Your task to perform on an android device: Search for pizza restaurants on Maps Image 0: 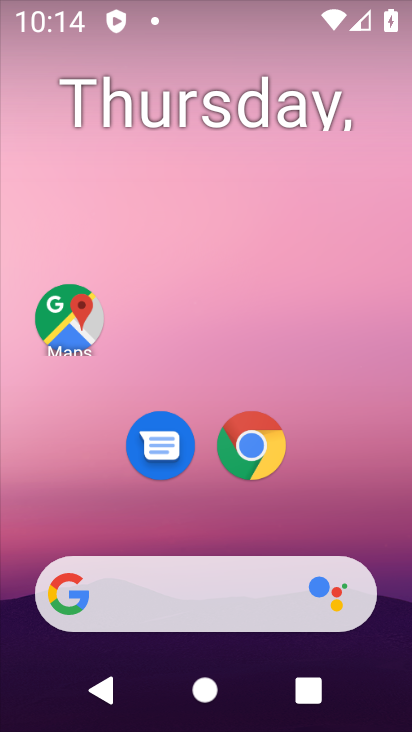
Step 0: drag from (374, 531) to (248, 0)
Your task to perform on an android device: Search for pizza restaurants on Maps Image 1: 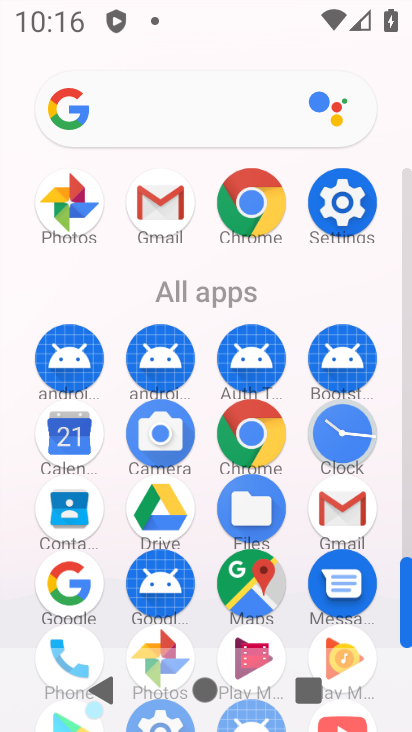
Step 1: click (264, 580)
Your task to perform on an android device: Search for pizza restaurants on Maps Image 2: 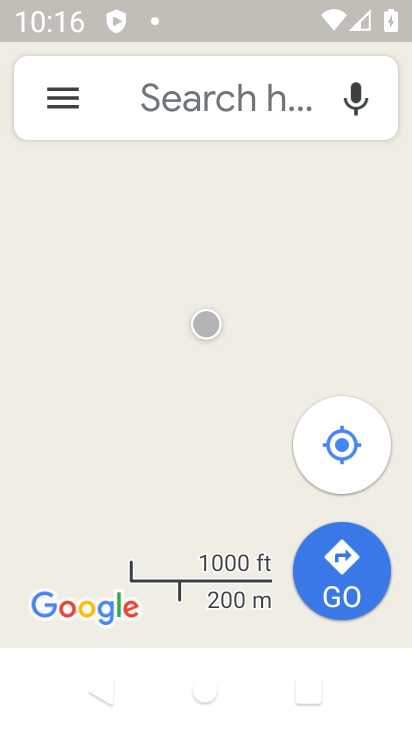
Step 2: click (183, 109)
Your task to perform on an android device: Search for pizza restaurants on Maps Image 3: 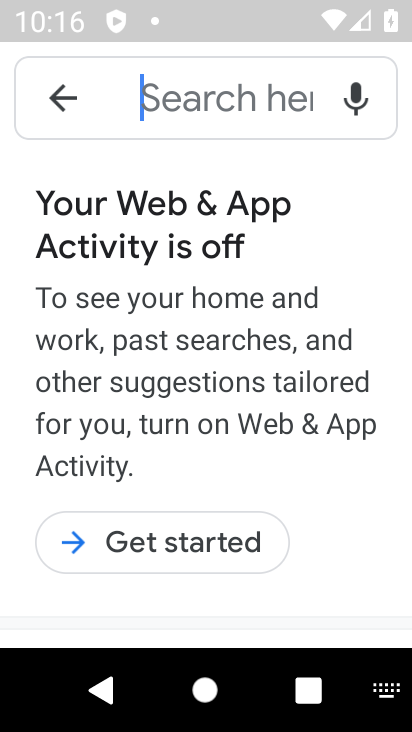
Step 3: click (164, 547)
Your task to perform on an android device: Search for pizza restaurants on Maps Image 4: 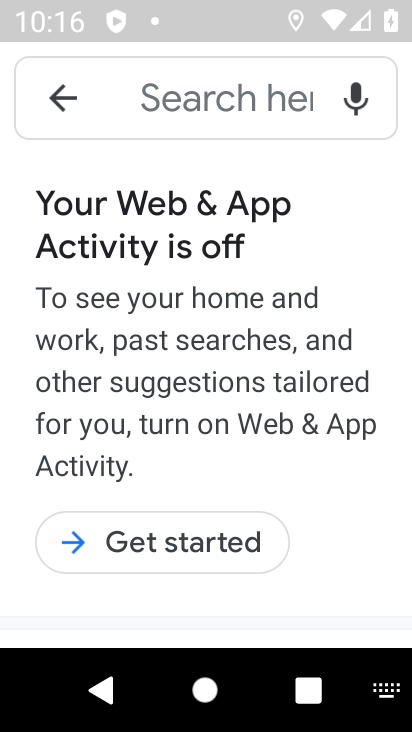
Step 4: click (152, 546)
Your task to perform on an android device: Search for pizza restaurants on Maps Image 5: 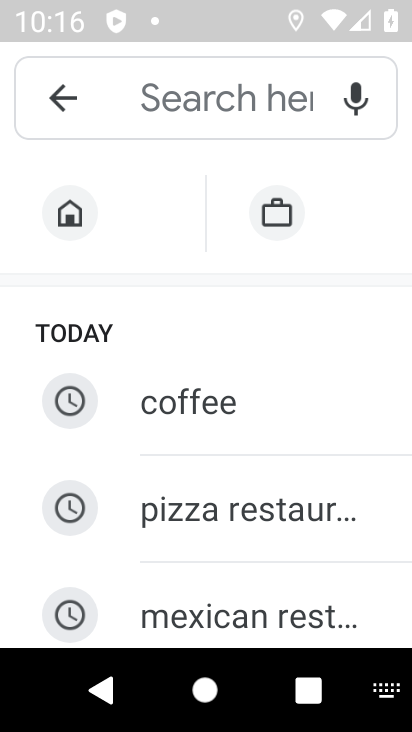
Step 5: click (203, 509)
Your task to perform on an android device: Search for pizza restaurants on Maps Image 6: 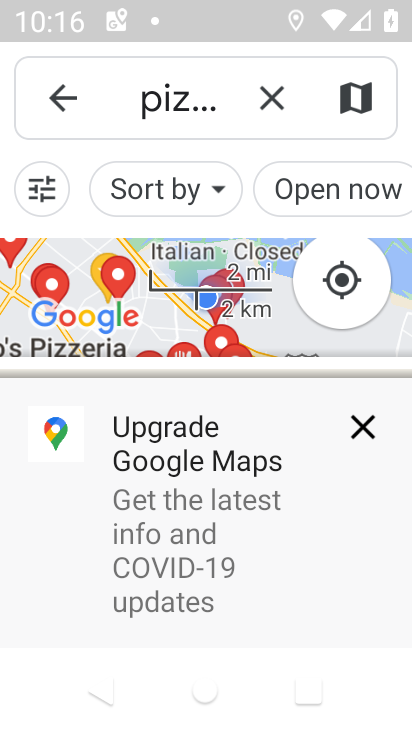
Step 6: task complete